Your task to perform on an android device: When is my next meeting? Image 0: 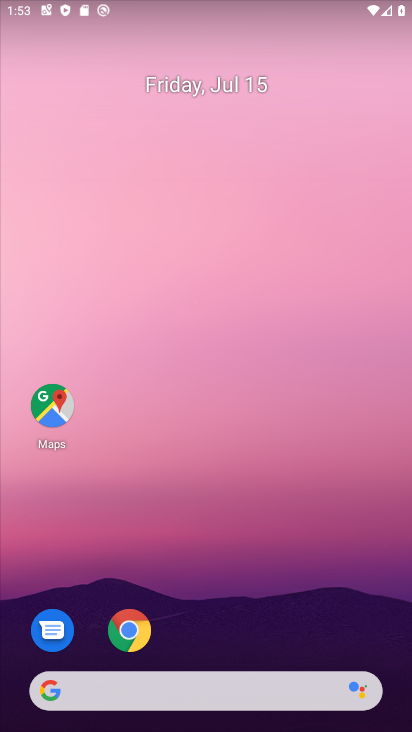
Step 0: drag from (243, 584) to (243, 150)
Your task to perform on an android device: When is my next meeting? Image 1: 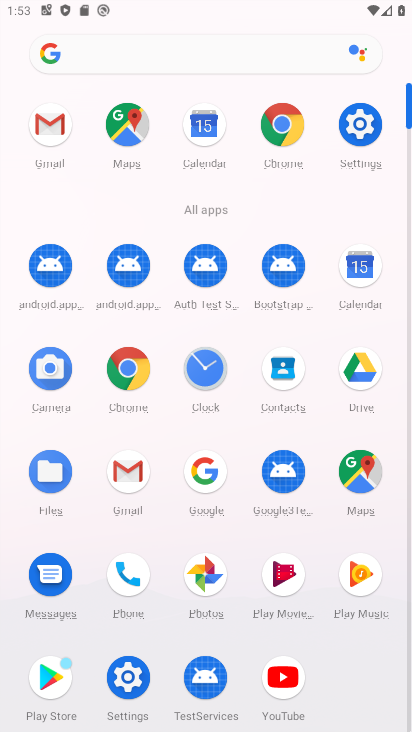
Step 1: click (360, 270)
Your task to perform on an android device: When is my next meeting? Image 2: 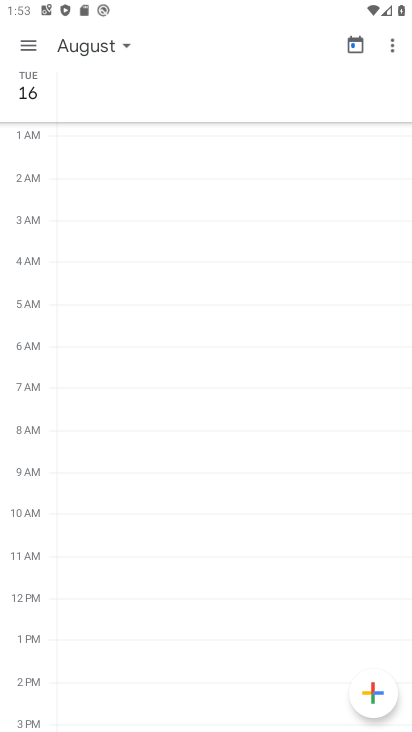
Step 2: click (120, 45)
Your task to perform on an android device: When is my next meeting? Image 3: 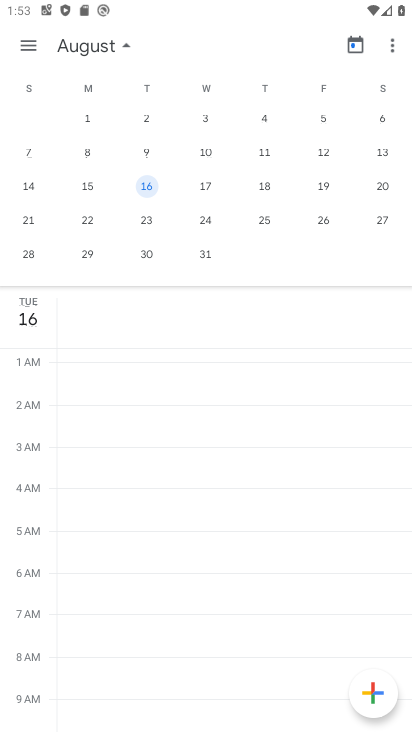
Step 3: drag from (56, 141) to (398, 163)
Your task to perform on an android device: When is my next meeting? Image 4: 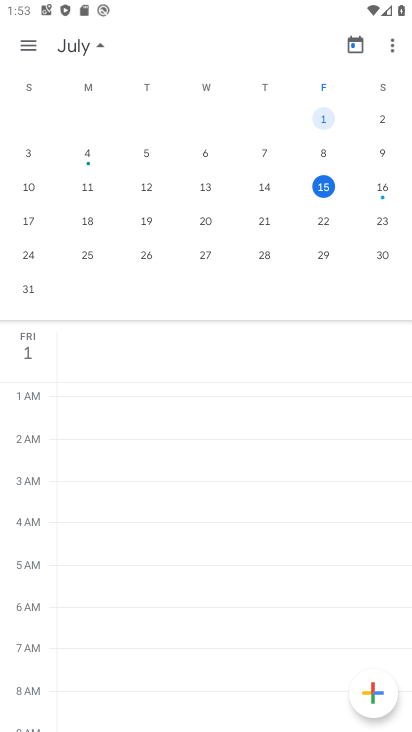
Step 4: click (323, 186)
Your task to perform on an android device: When is my next meeting? Image 5: 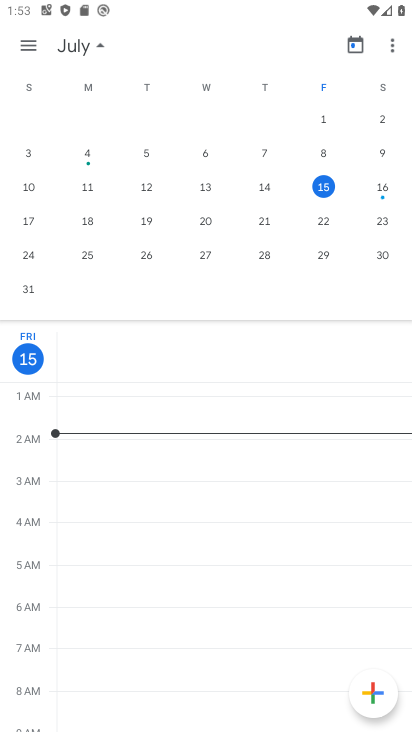
Step 5: task complete